Your task to perform on an android device: turn off airplane mode Image 0: 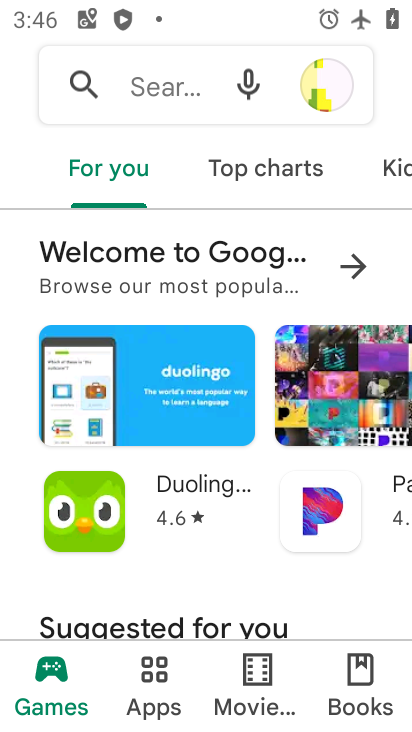
Step 0: press home button
Your task to perform on an android device: turn off airplane mode Image 1: 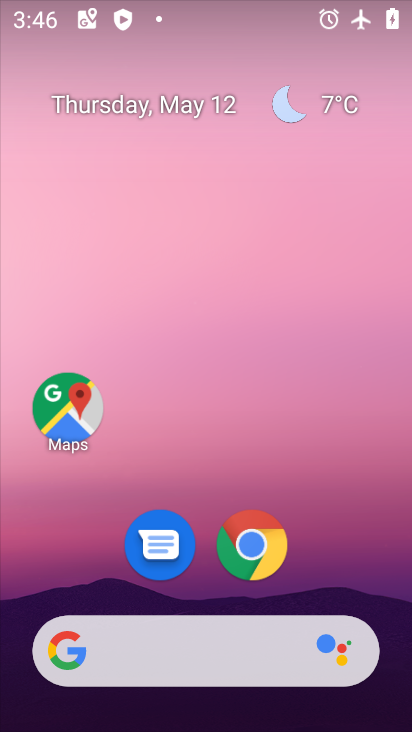
Step 1: drag from (401, 671) to (287, 120)
Your task to perform on an android device: turn off airplane mode Image 2: 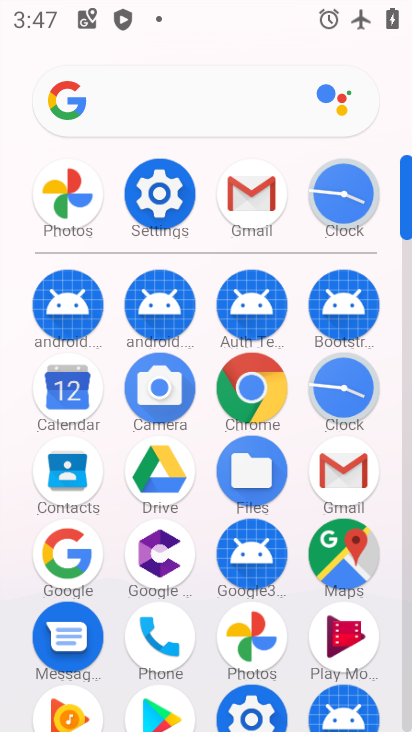
Step 2: click (252, 718)
Your task to perform on an android device: turn off airplane mode Image 3: 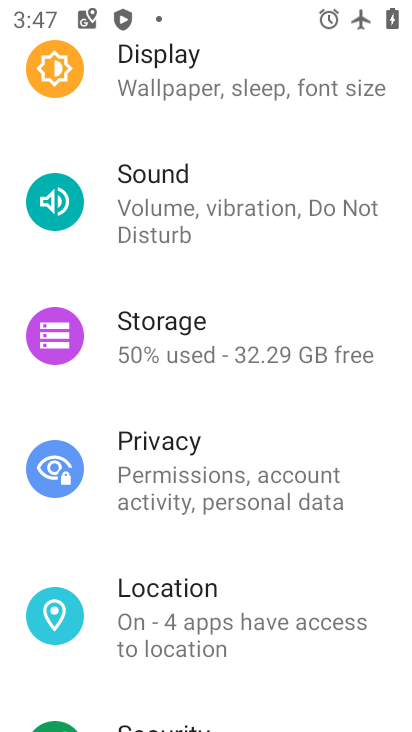
Step 3: drag from (375, 248) to (283, 608)
Your task to perform on an android device: turn off airplane mode Image 4: 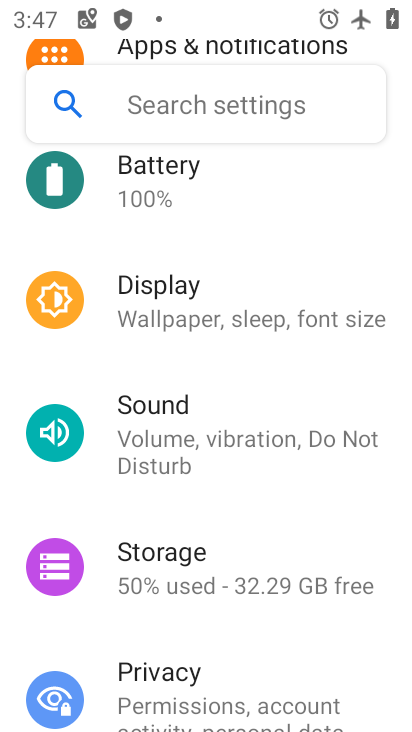
Step 4: drag from (320, 184) to (237, 518)
Your task to perform on an android device: turn off airplane mode Image 5: 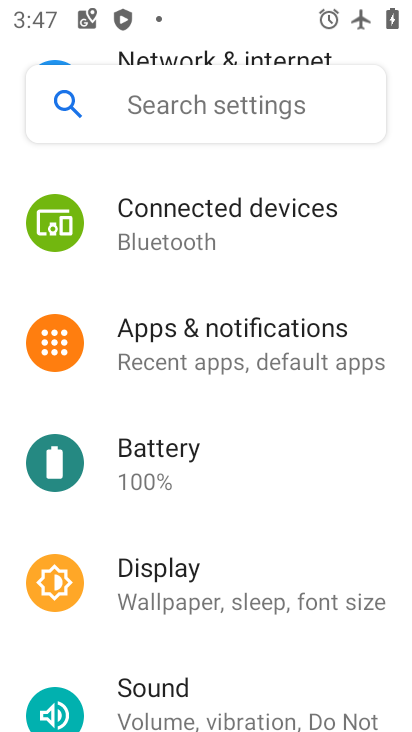
Step 5: drag from (287, 230) to (224, 563)
Your task to perform on an android device: turn off airplane mode Image 6: 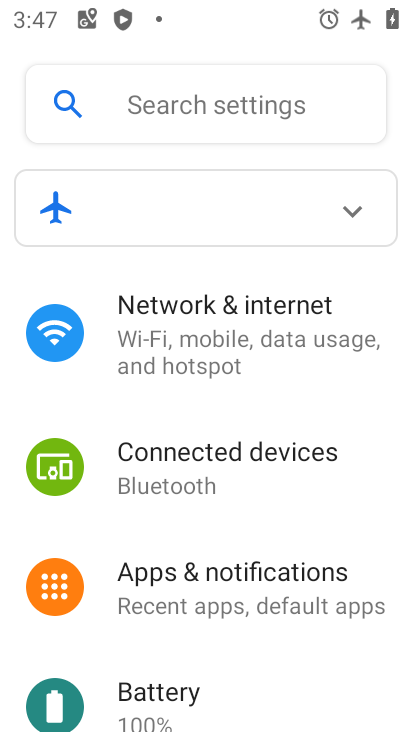
Step 6: click (185, 325)
Your task to perform on an android device: turn off airplane mode Image 7: 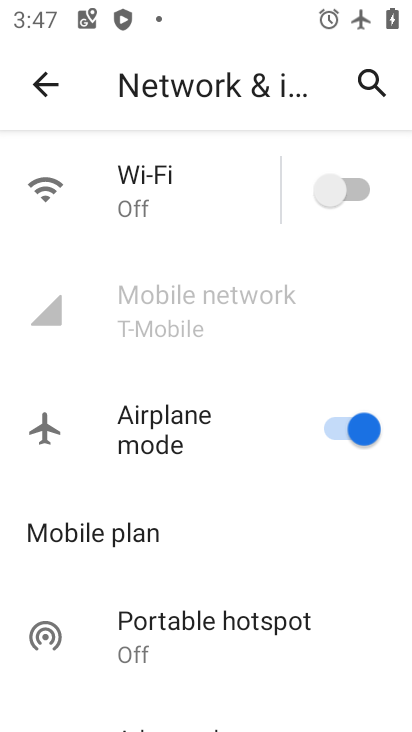
Step 7: click (328, 425)
Your task to perform on an android device: turn off airplane mode Image 8: 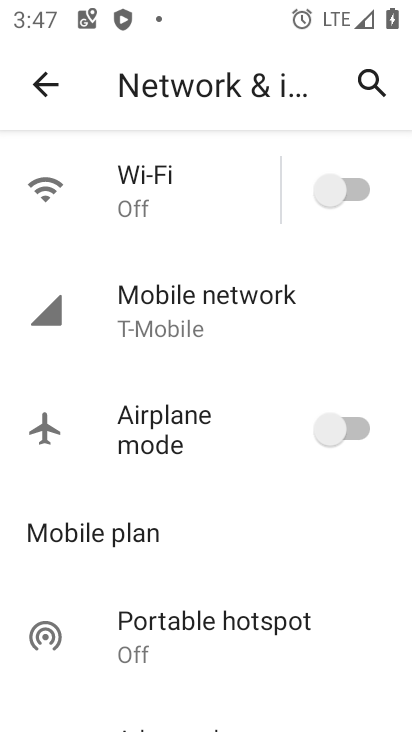
Step 8: task complete